Your task to perform on an android device: What are the new products by Samsung? Image 0: 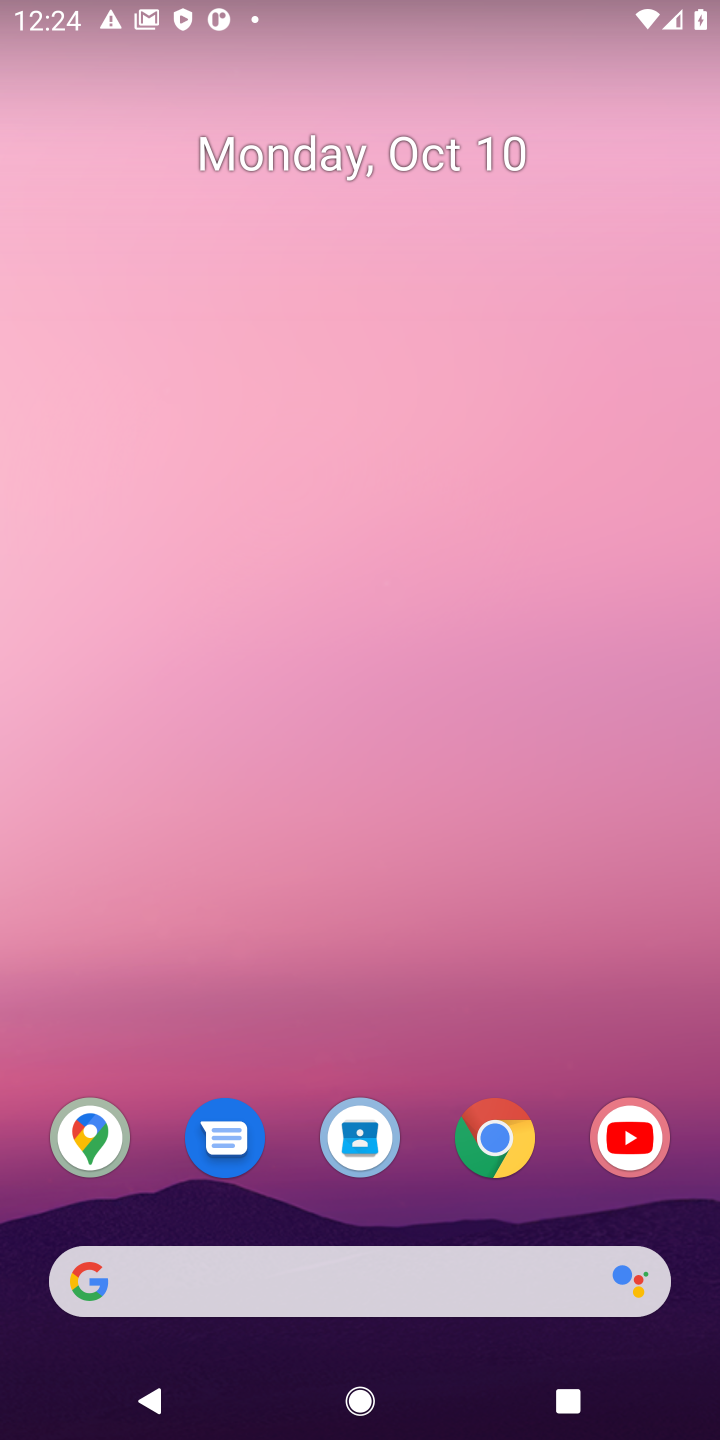
Step 0: click (479, 1151)
Your task to perform on an android device: What are the new products by Samsung? Image 1: 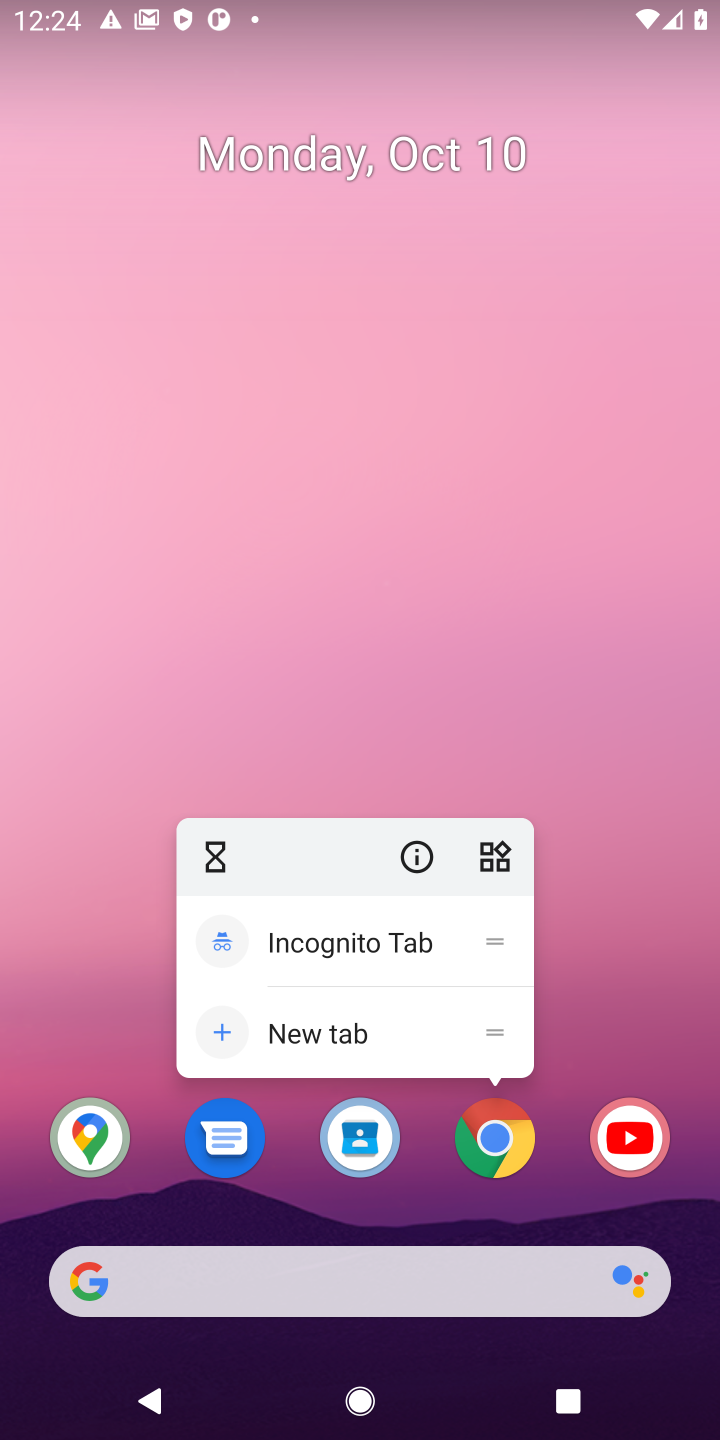
Step 1: click (514, 1161)
Your task to perform on an android device: What are the new products by Samsung? Image 2: 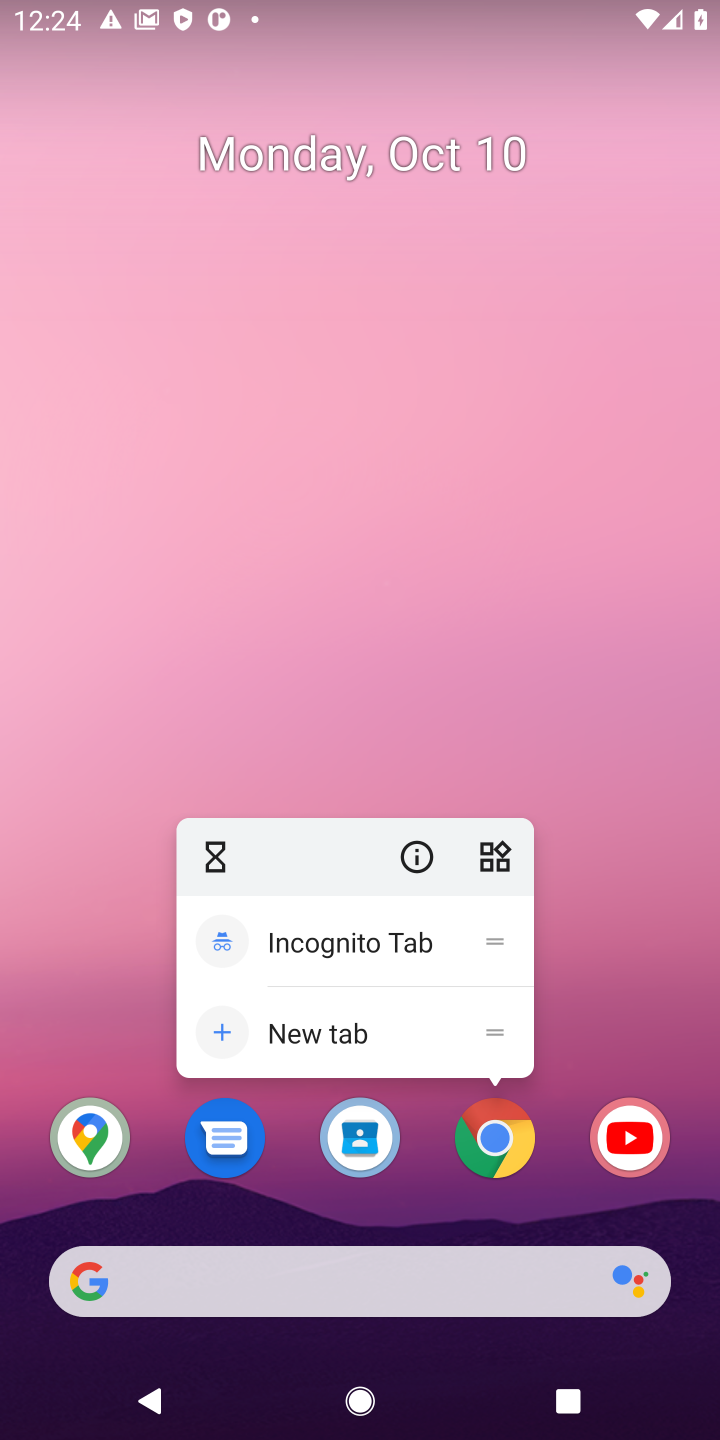
Step 2: click (514, 1161)
Your task to perform on an android device: What are the new products by Samsung? Image 3: 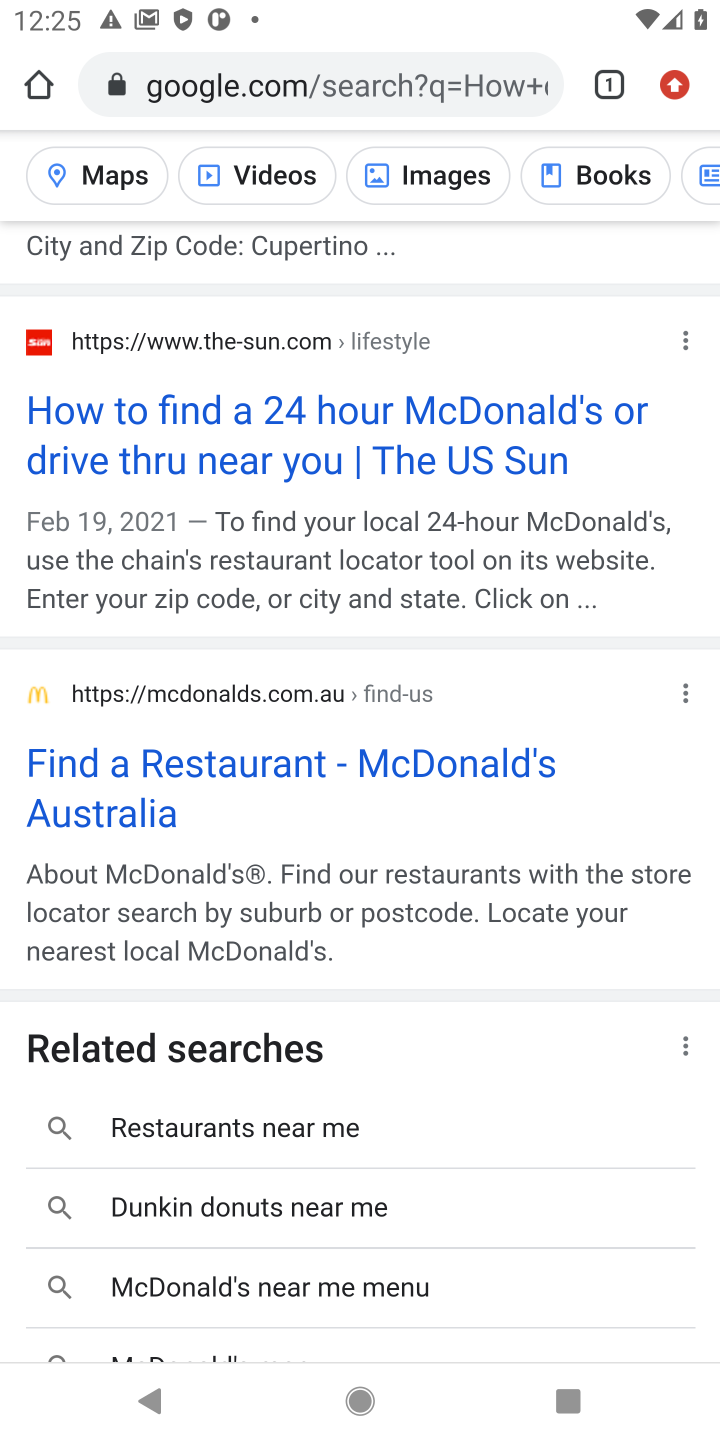
Step 3: click (386, 99)
Your task to perform on an android device: What are the new products by Samsung? Image 4: 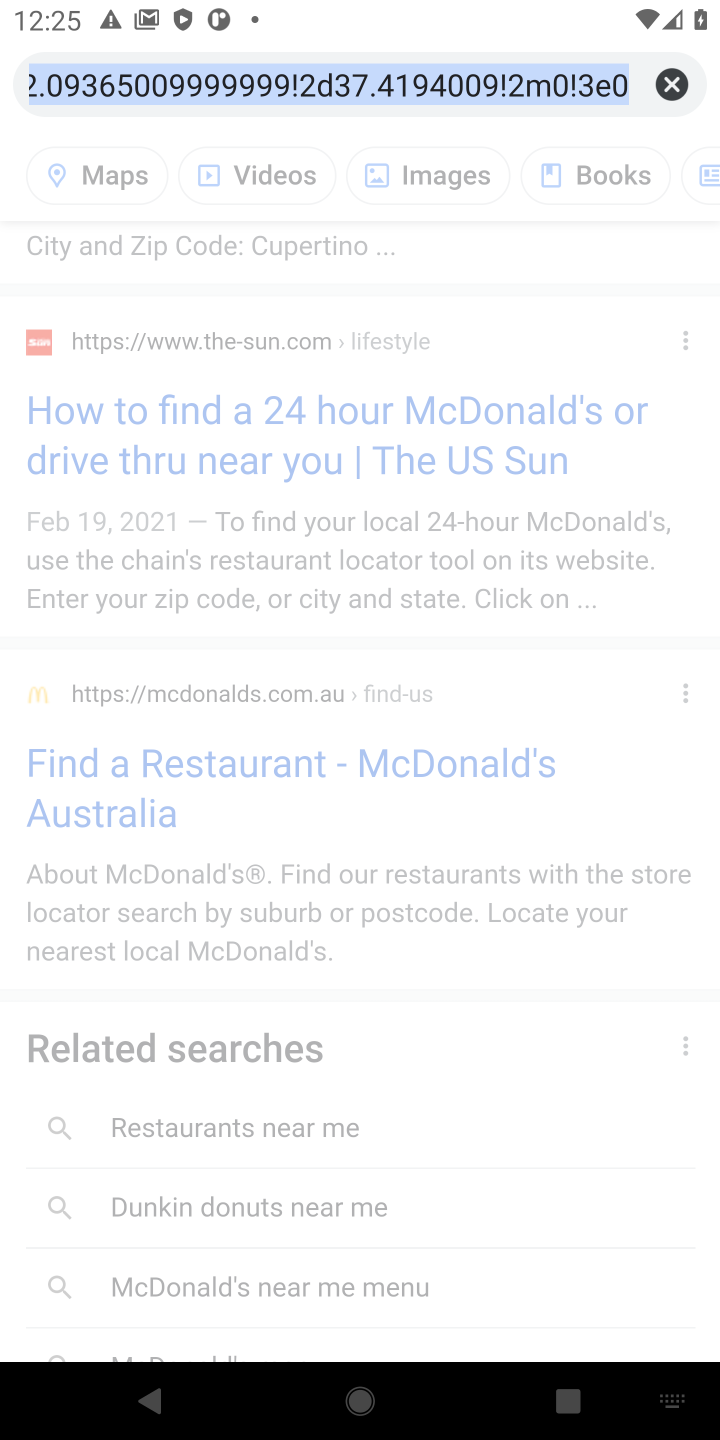
Step 4: type "What are the new products by Samsung?"
Your task to perform on an android device: What are the new products by Samsung? Image 5: 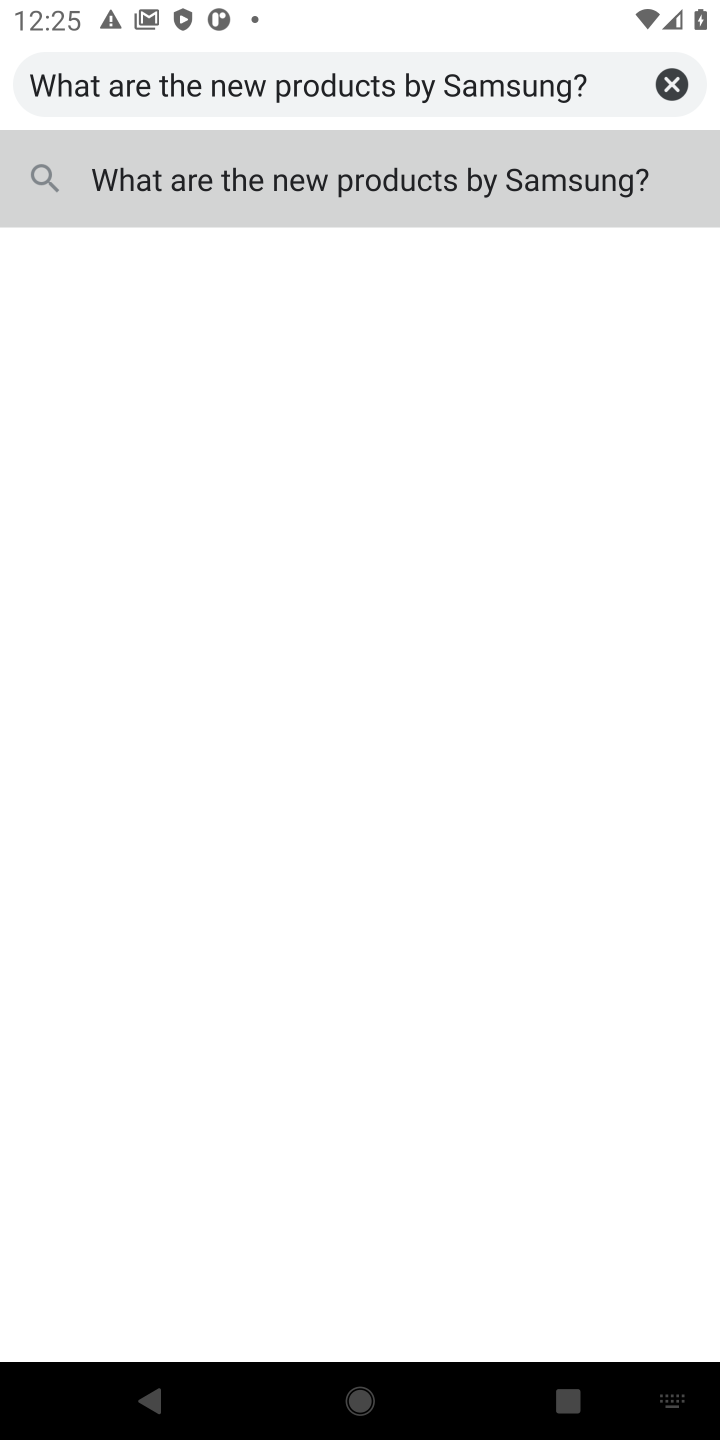
Step 5: press enter
Your task to perform on an android device: What are the new products by Samsung? Image 6: 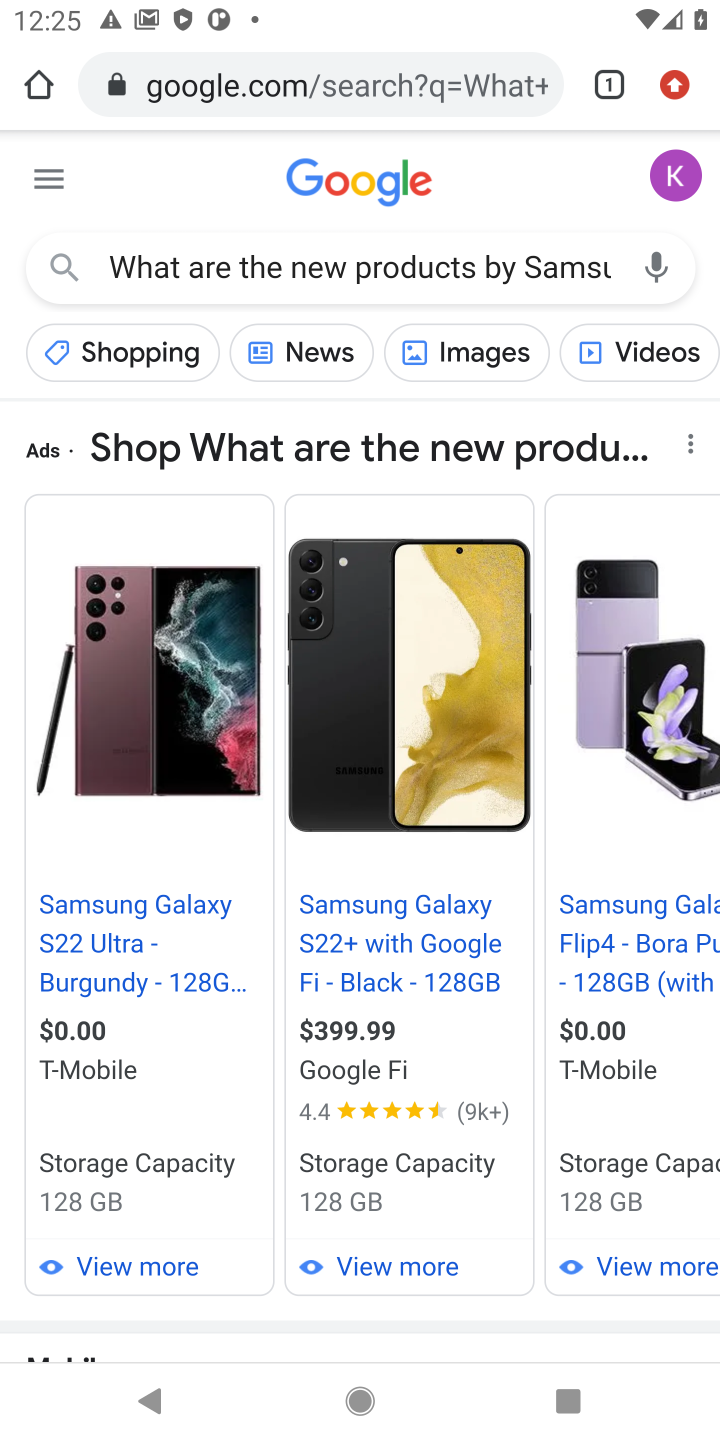
Step 6: task complete